Your task to perform on an android device: Toggle the flashlight Image 0: 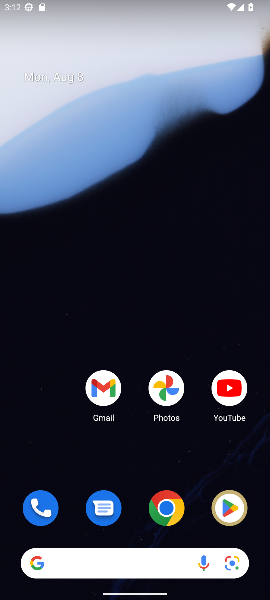
Step 0: drag from (134, 468) to (127, 30)
Your task to perform on an android device: Toggle the flashlight Image 1: 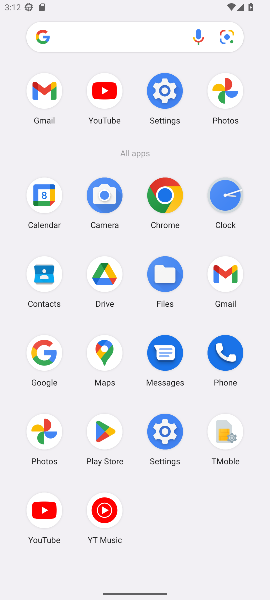
Step 1: click (165, 431)
Your task to perform on an android device: Toggle the flashlight Image 2: 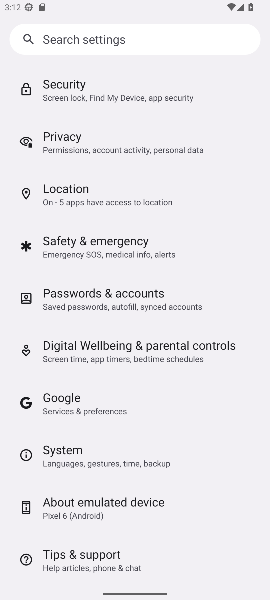
Step 2: drag from (174, 116) to (147, 368)
Your task to perform on an android device: Toggle the flashlight Image 3: 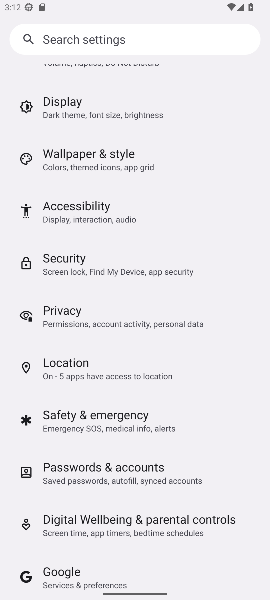
Step 3: drag from (166, 176) to (182, 560)
Your task to perform on an android device: Toggle the flashlight Image 4: 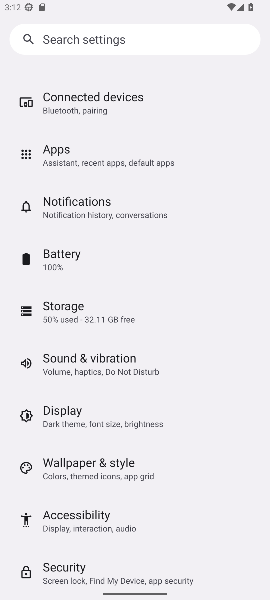
Step 4: drag from (182, 222) to (123, 596)
Your task to perform on an android device: Toggle the flashlight Image 5: 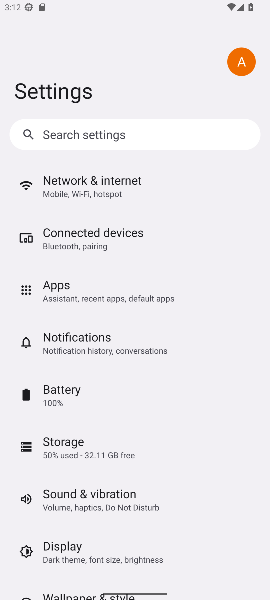
Step 5: click (72, 550)
Your task to perform on an android device: Toggle the flashlight Image 6: 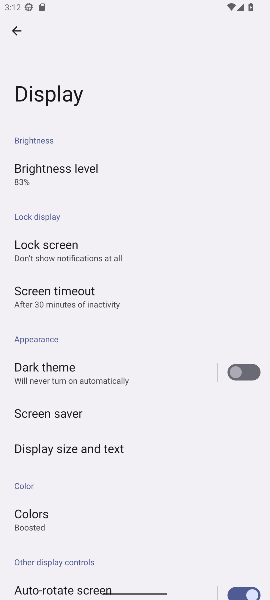
Step 6: click (160, 403)
Your task to perform on an android device: Toggle the flashlight Image 7: 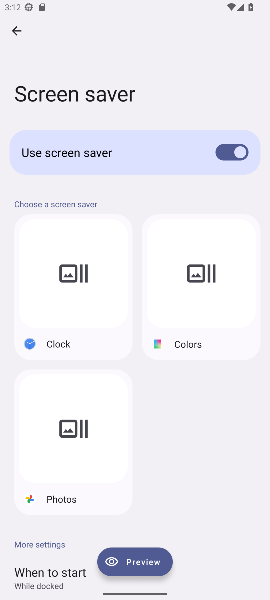
Step 7: task complete